Your task to perform on an android device: Go to eBay Image 0: 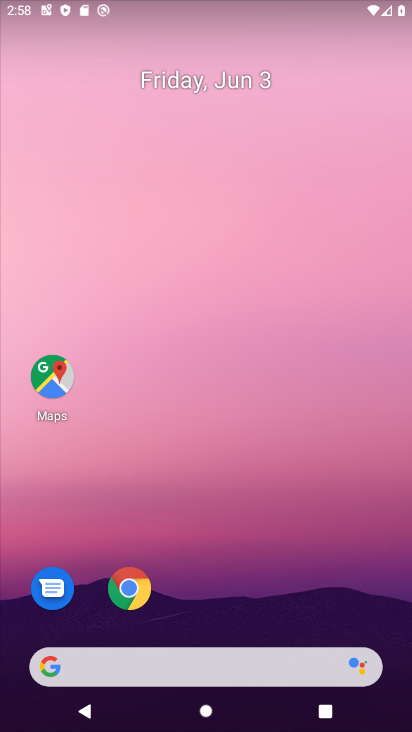
Step 0: click (131, 583)
Your task to perform on an android device: Go to eBay Image 1: 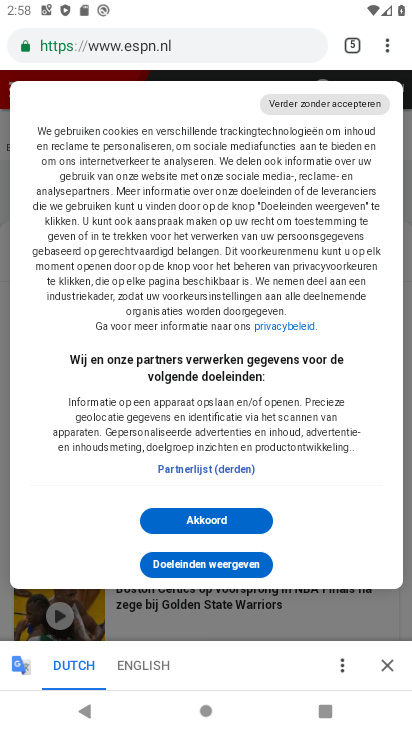
Step 1: click (355, 43)
Your task to perform on an android device: Go to eBay Image 2: 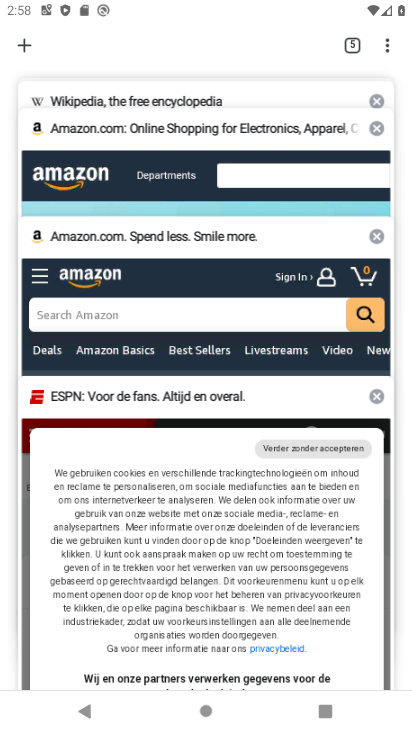
Step 2: click (375, 101)
Your task to perform on an android device: Go to eBay Image 3: 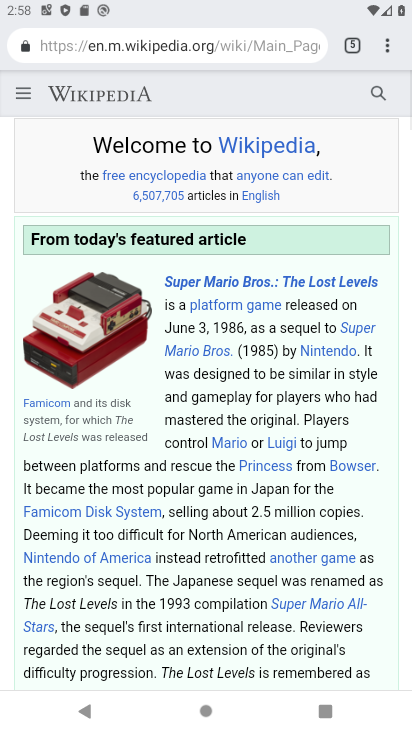
Step 3: click (355, 46)
Your task to perform on an android device: Go to eBay Image 4: 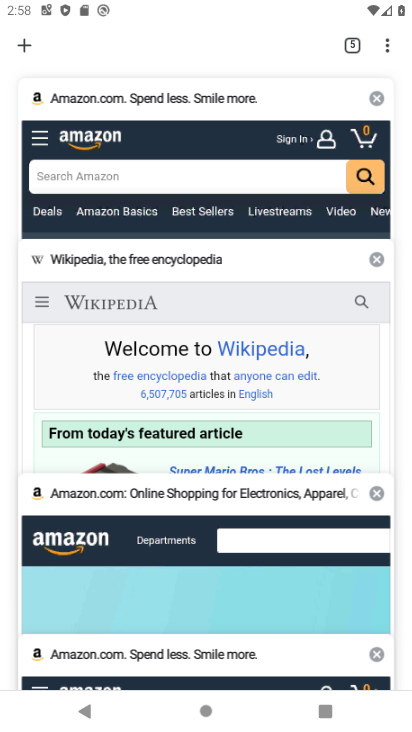
Step 4: click (377, 94)
Your task to perform on an android device: Go to eBay Image 5: 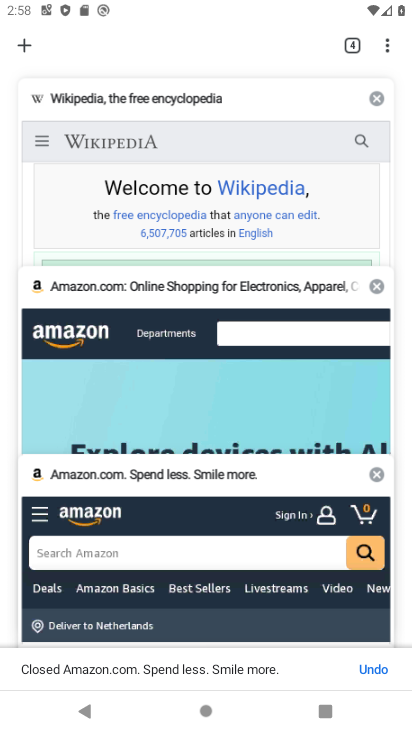
Step 5: click (377, 94)
Your task to perform on an android device: Go to eBay Image 6: 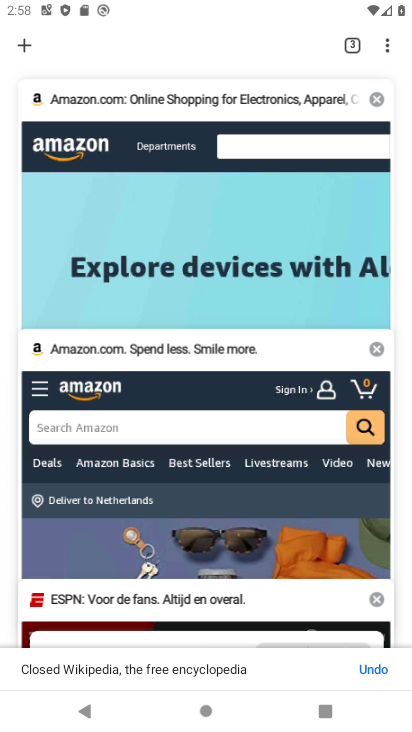
Step 6: click (375, 108)
Your task to perform on an android device: Go to eBay Image 7: 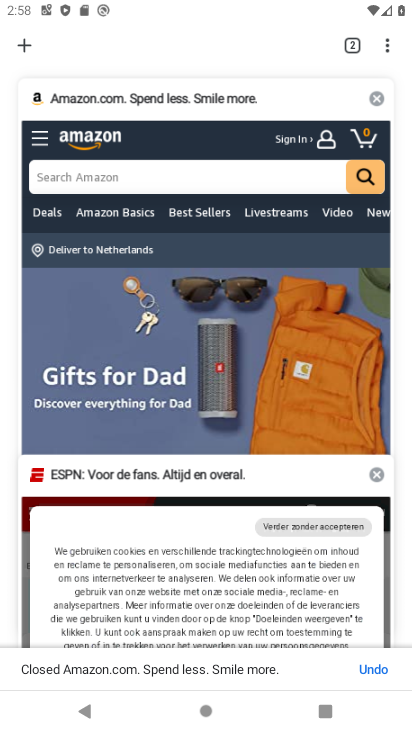
Step 7: click (375, 104)
Your task to perform on an android device: Go to eBay Image 8: 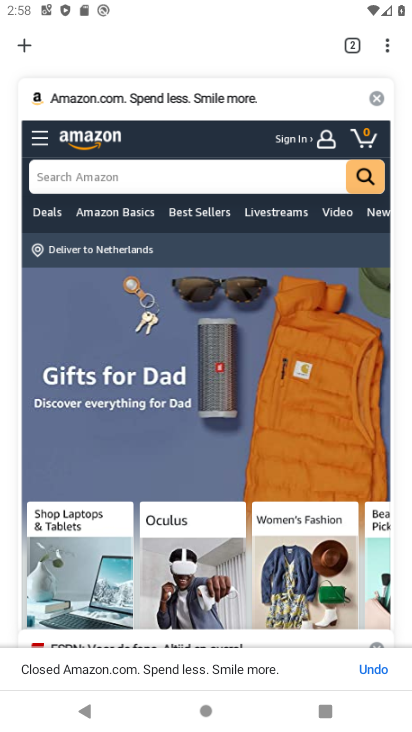
Step 8: click (378, 92)
Your task to perform on an android device: Go to eBay Image 9: 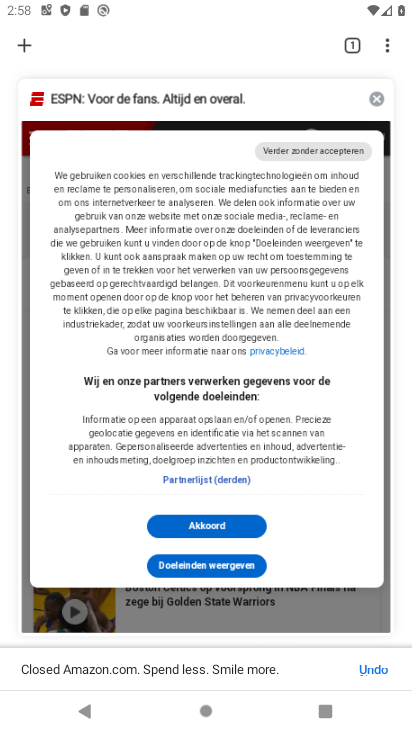
Step 9: click (374, 99)
Your task to perform on an android device: Go to eBay Image 10: 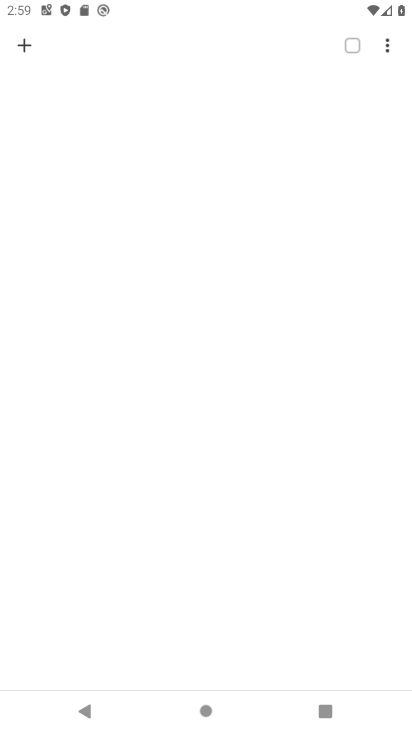
Step 10: click (27, 44)
Your task to perform on an android device: Go to eBay Image 11: 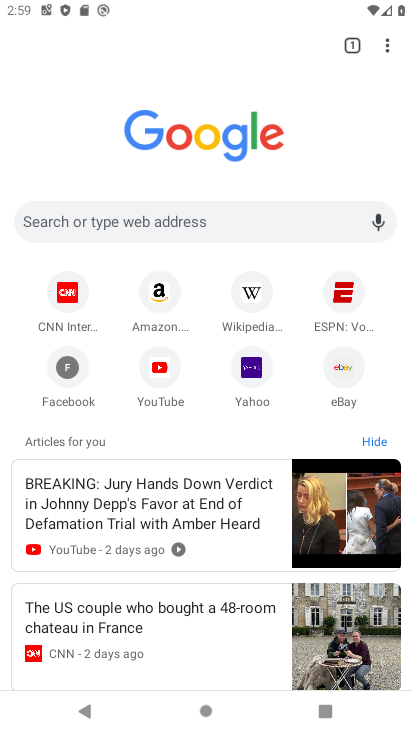
Step 11: click (346, 371)
Your task to perform on an android device: Go to eBay Image 12: 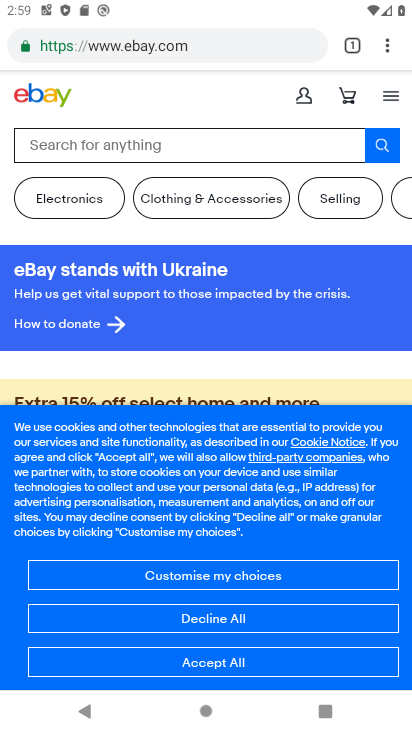
Step 12: task complete